Your task to perform on an android device: allow cookies in the chrome app Image 0: 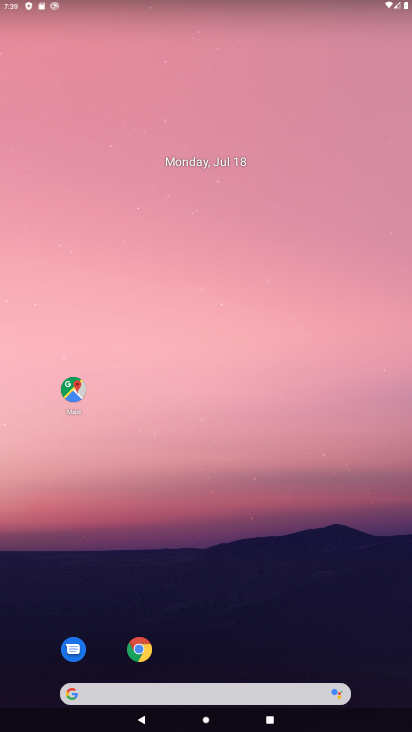
Step 0: drag from (344, 676) to (271, 131)
Your task to perform on an android device: allow cookies in the chrome app Image 1: 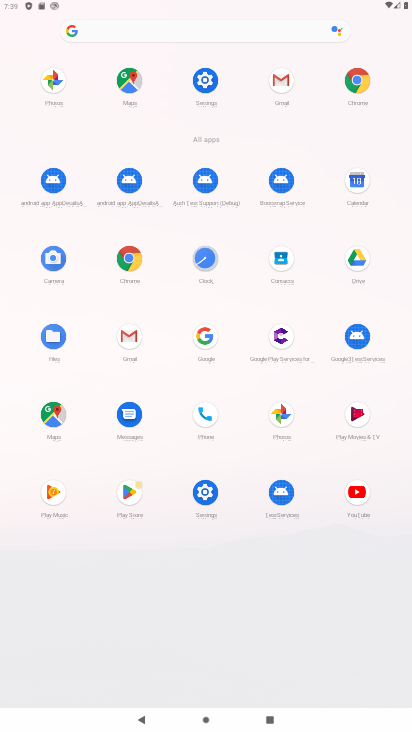
Step 1: click (131, 256)
Your task to perform on an android device: allow cookies in the chrome app Image 2: 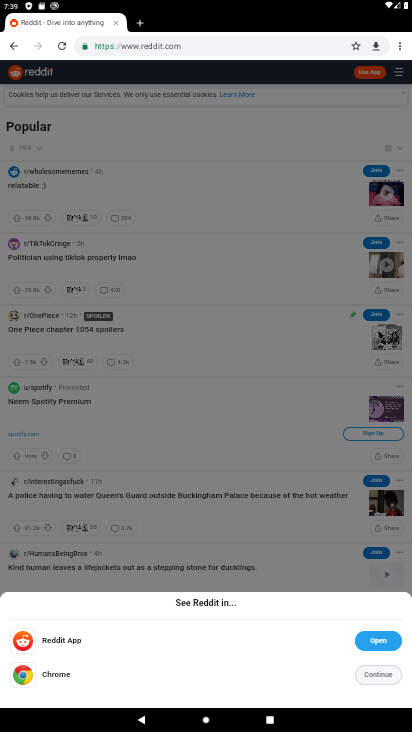
Step 2: drag from (402, 40) to (314, 340)
Your task to perform on an android device: allow cookies in the chrome app Image 3: 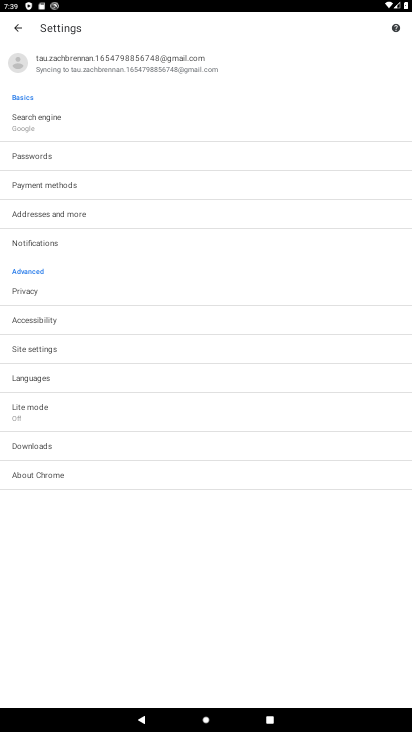
Step 3: click (40, 351)
Your task to perform on an android device: allow cookies in the chrome app Image 4: 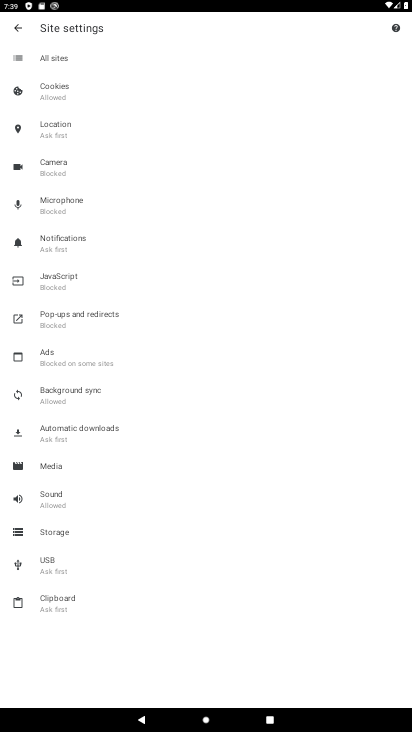
Step 4: click (67, 89)
Your task to perform on an android device: allow cookies in the chrome app Image 5: 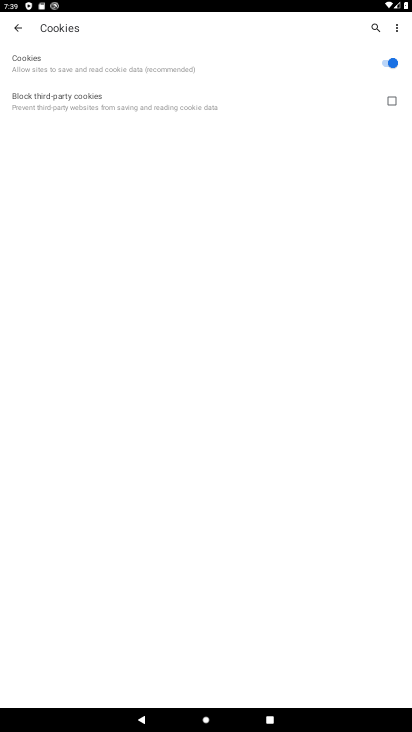
Step 5: task complete